Your task to perform on an android device: manage bookmarks in the chrome app Image 0: 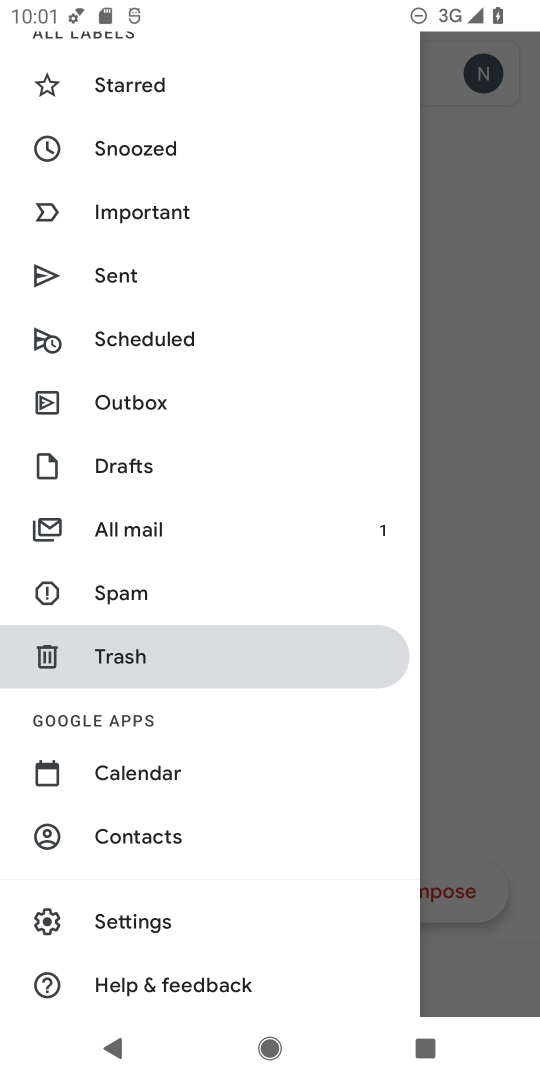
Step 0: press home button
Your task to perform on an android device: manage bookmarks in the chrome app Image 1: 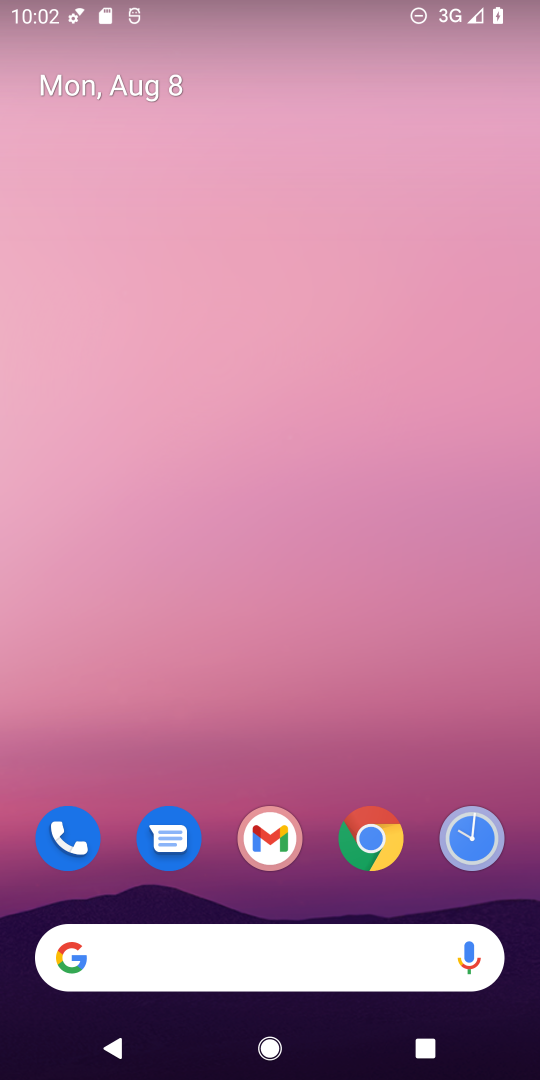
Step 1: drag from (221, 876) to (181, 179)
Your task to perform on an android device: manage bookmarks in the chrome app Image 2: 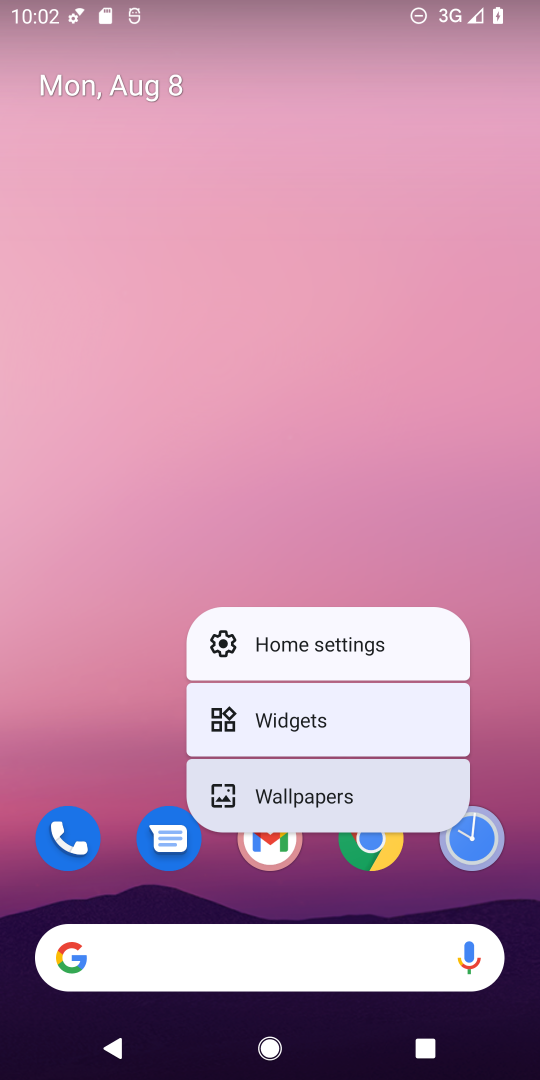
Step 2: click (124, 714)
Your task to perform on an android device: manage bookmarks in the chrome app Image 3: 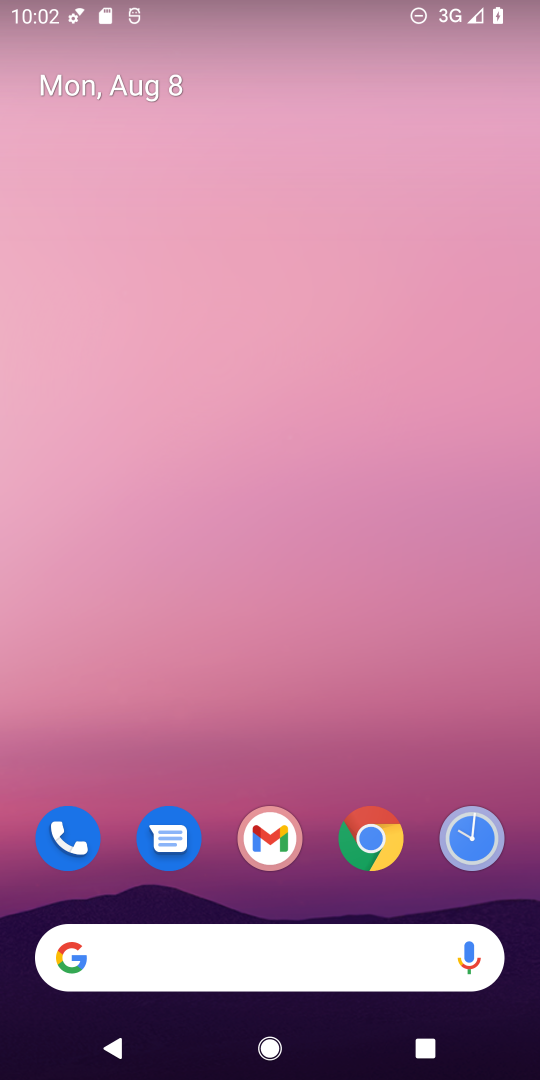
Step 3: click (366, 842)
Your task to perform on an android device: manage bookmarks in the chrome app Image 4: 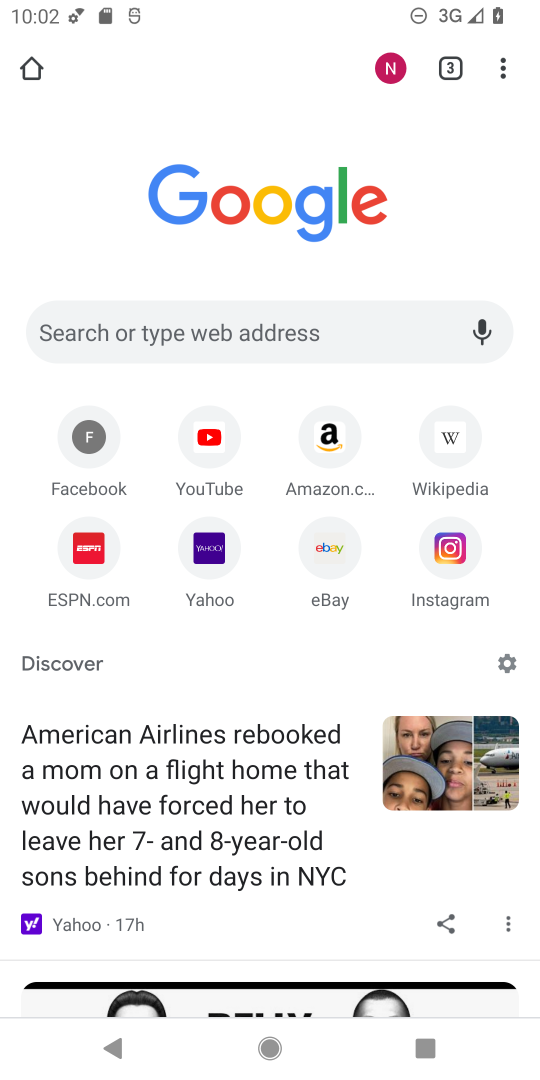
Step 4: drag from (495, 67) to (317, 495)
Your task to perform on an android device: manage bookmarks in the chrome app Image 5: 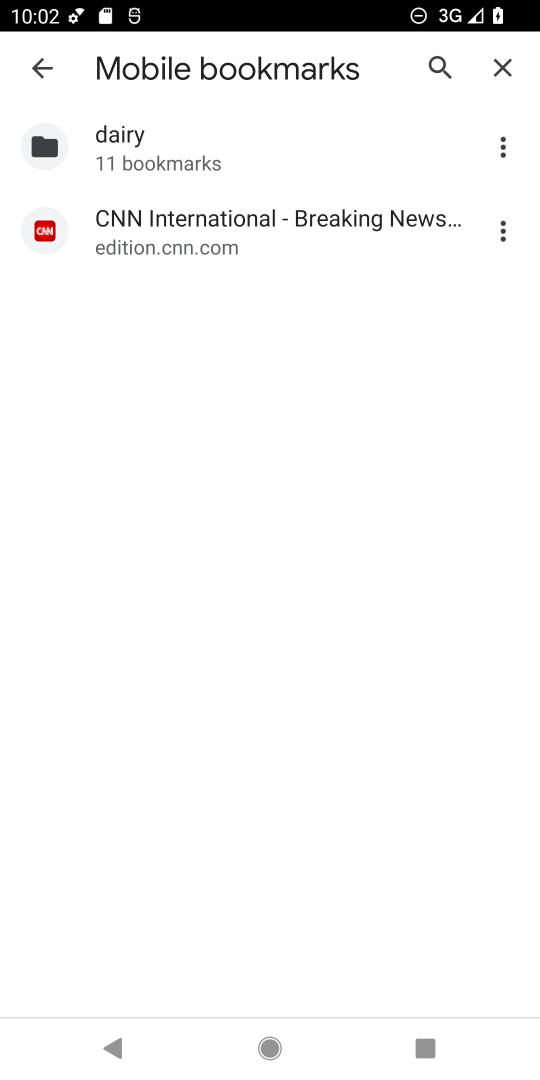
Step 5: click (506, 217)
Your task to perform on an android device: manage bookmarks in the chrome app Image 6: 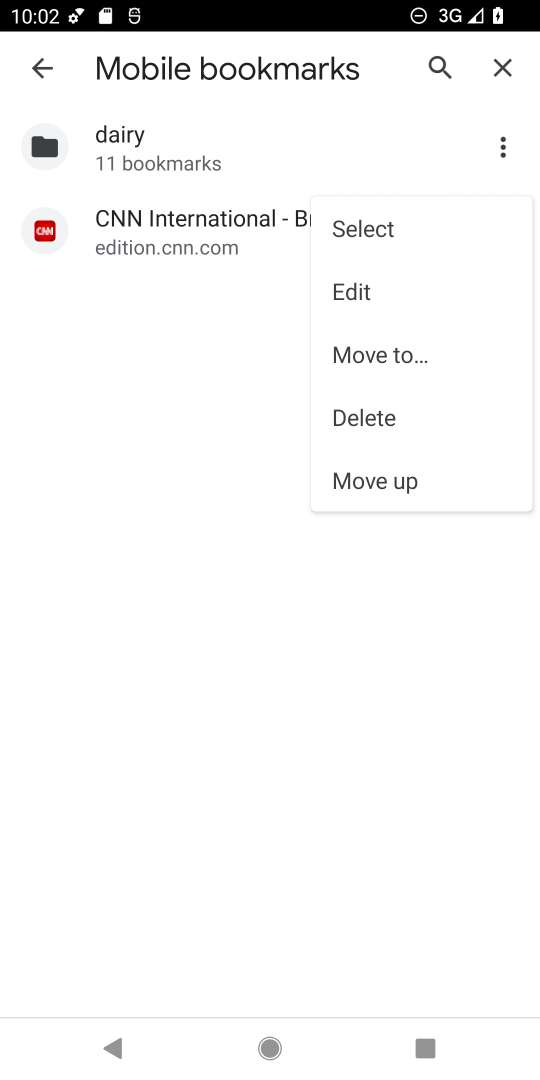
Step 6: click (326, 291)
Your task to perform on an android device: manage bookmarks in the chrome app Image 7: 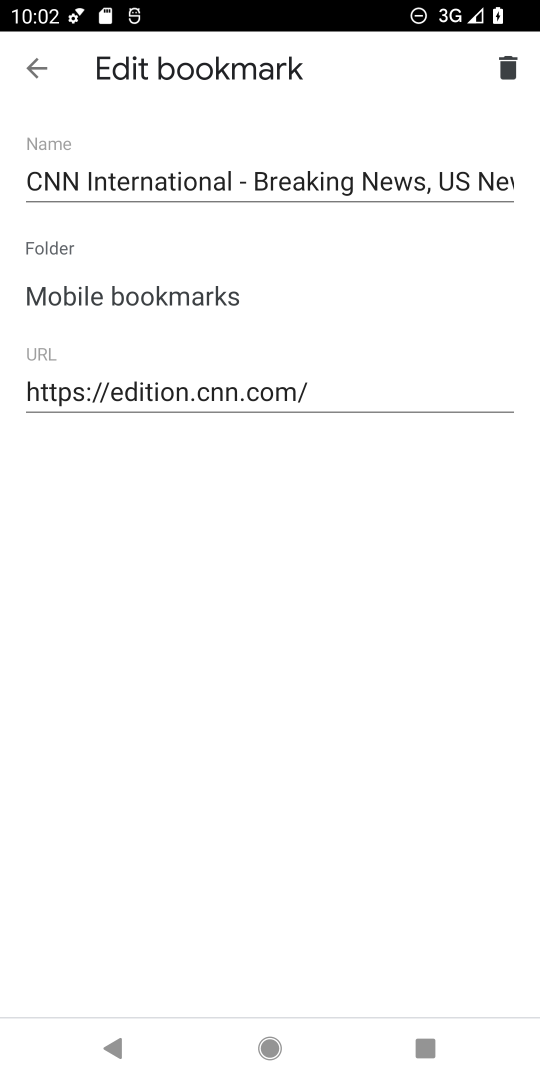
Step 7: task complete